Your task to perform on an android device: delete location history Image 0: 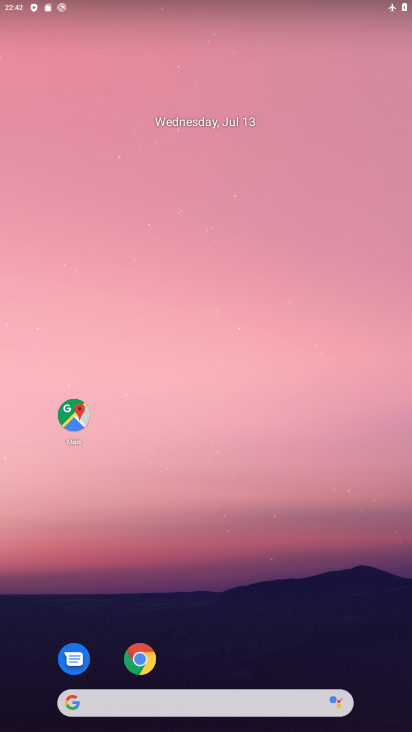
Step 0: click (74, 407)
Your task to perform on an android device: delete location history Image 1: 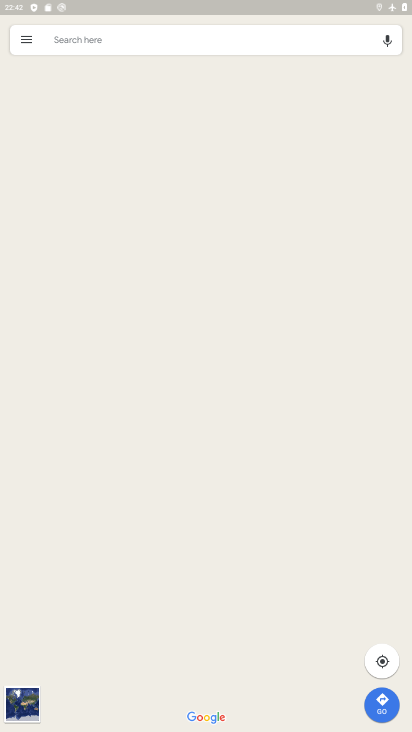
Step 1: click (22, 41)
Your task to perform on an android device: delete location history Image 2: 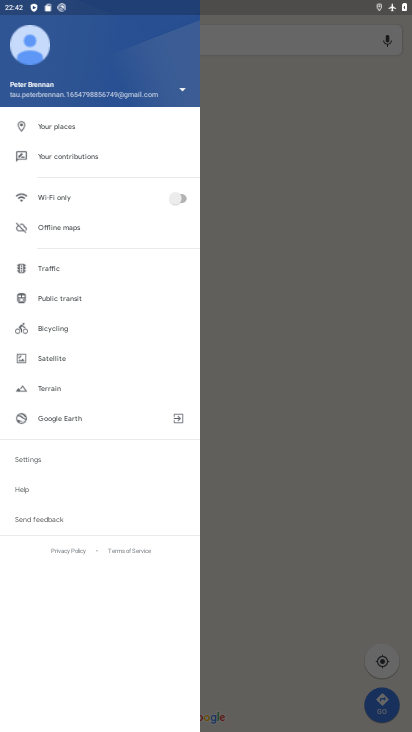
Step 2: click (31, 461)
Your task to perform on an android device: delete location history Image 3: 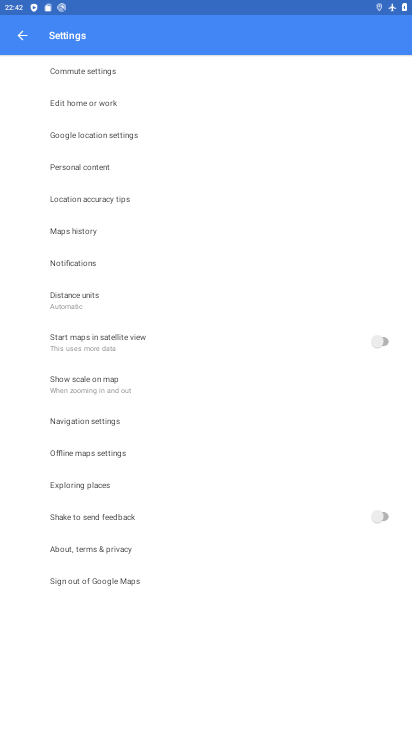
Step 3: click (79, 159)
Your task to perform on an android device: delete location history Image 4: 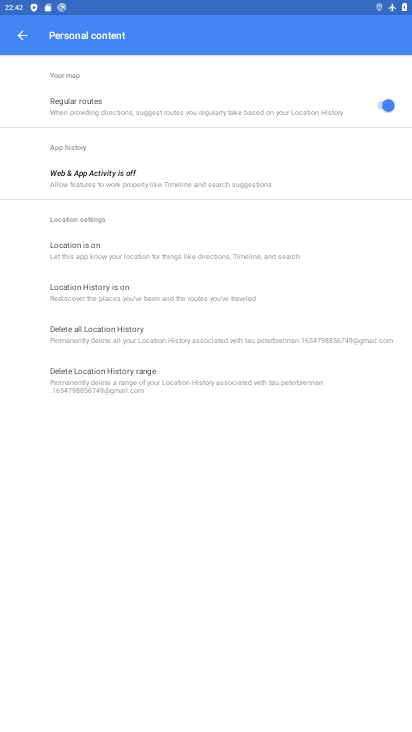
Step 4: click (99, 340)
Your task to perform on an android device: delete location history Image 5: 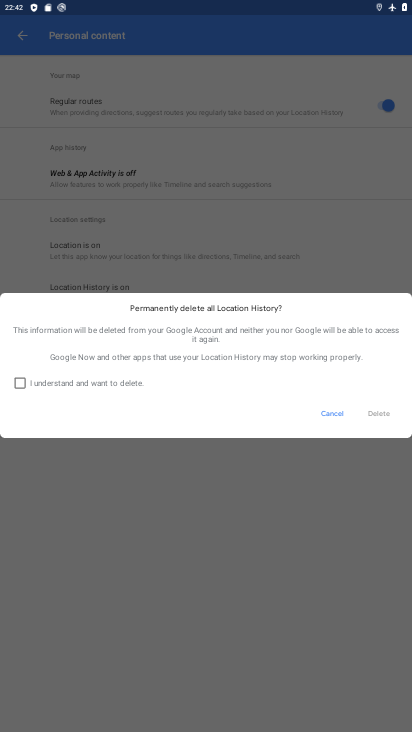
Step 5: click (19, 382)
Your task to perform on an android device: delete location history Image 6: 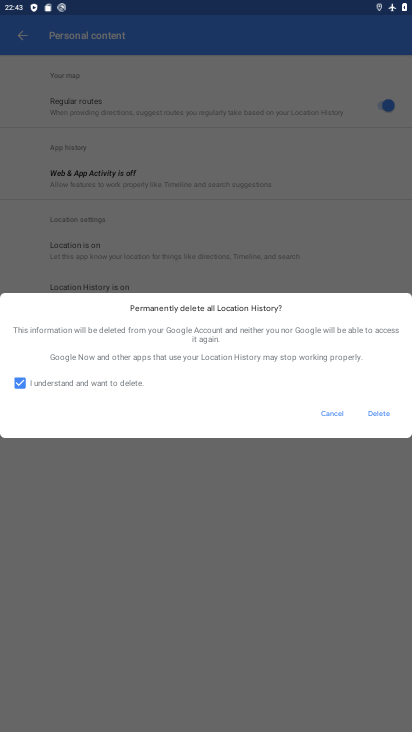
Step 6: click (373, 409)
Your task to perform on an android device: delete location history Image 7: 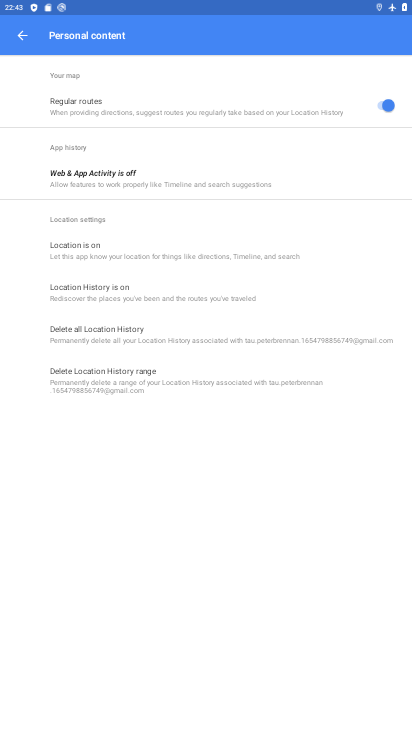
Step 7: task complete